Your task to perform on an android device: toggle data saver in the chrome app Image 0: 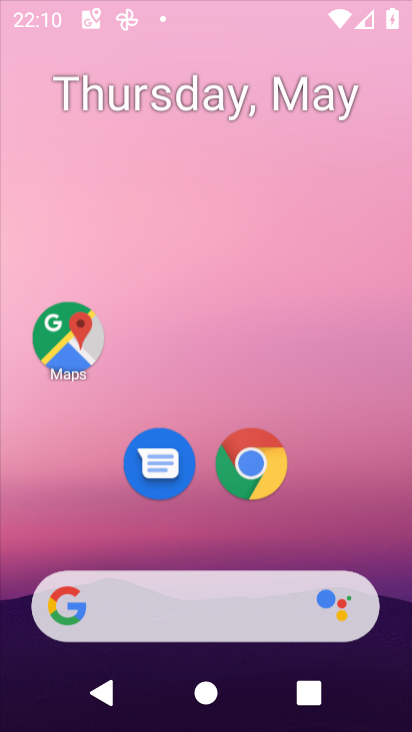
Step 0: drag from (325, 316) to (315, 44)
Your task to perform on an android device: toggle data saver in the chrome app Image 1: 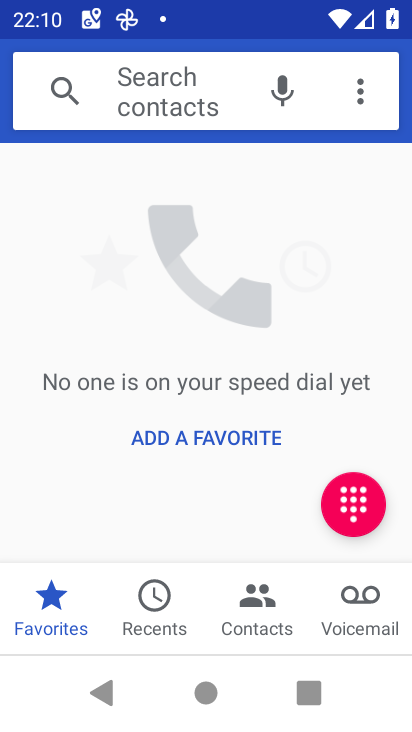
Step 1: press home button
Your task to perform on an android device: toggle data saver in the chrome app Image 2: 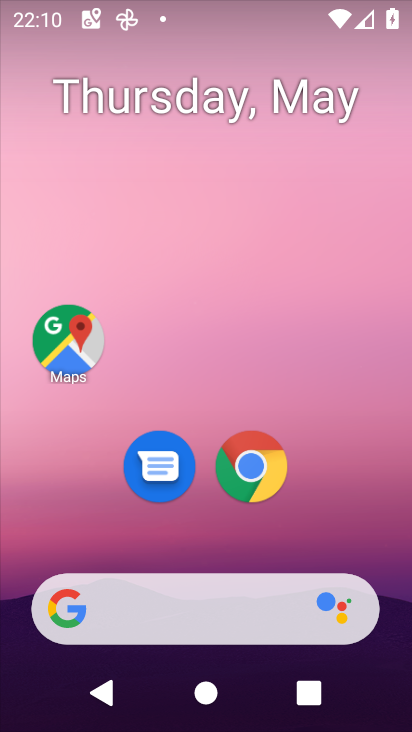
Step 2: drag from (330, 544) to (332, 30)
Your task to perform on an android device: toggle data saver in the chrome app Image 3: 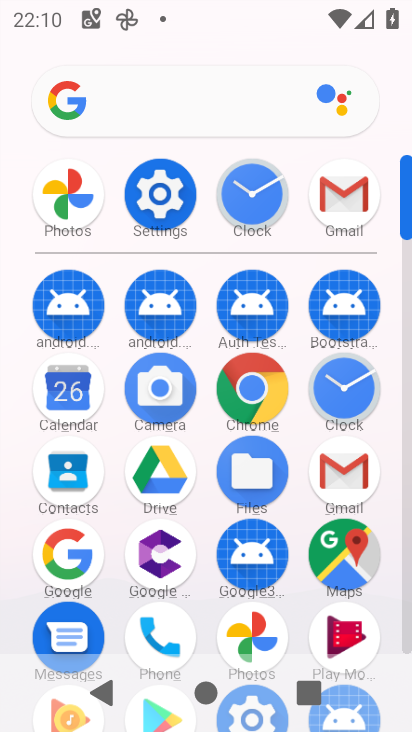
Step 3: click (265, 395)
Your task to perform on an android device: toggle data saver in the chrome app Image 4: 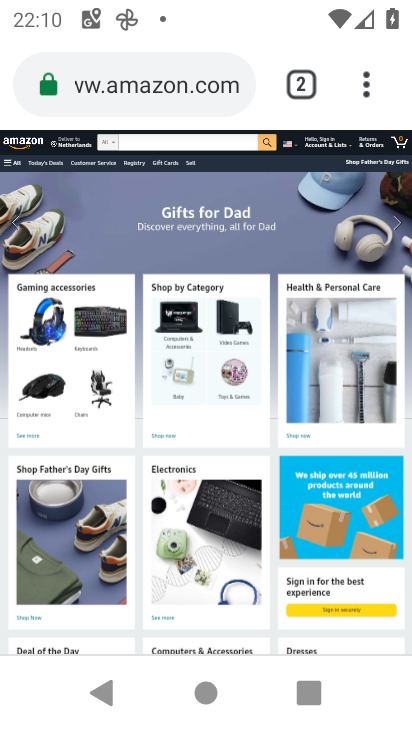
Step 4: click (363, 90)
Your task to perform on an android device: toggle data saver in the chrome app Image 5: 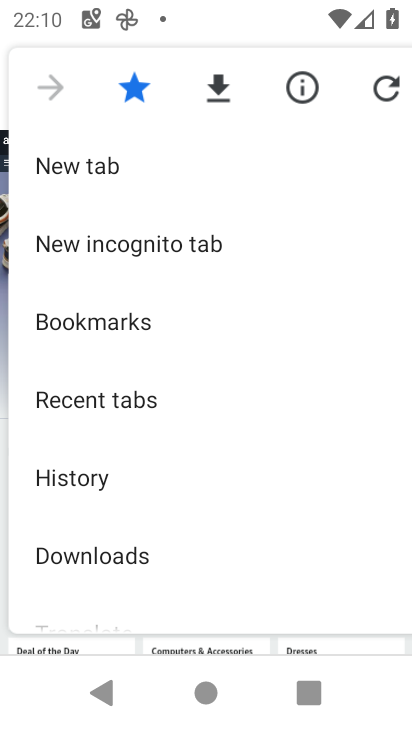
Step 5: drag from (238, 557) to (254, 187)
Your task to perform on an android device: toggle data saver in the chrome app Image 6: 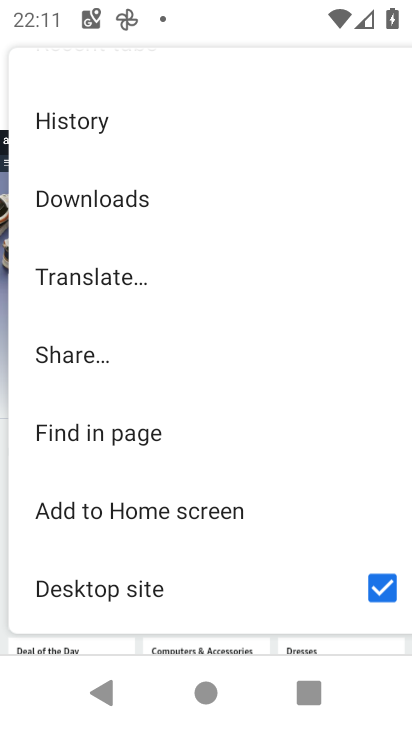
Step 6: drag from (153, 549) to (182, 180)
Your task to perform on an android device: toggle data saver in the chrome app Image 7: 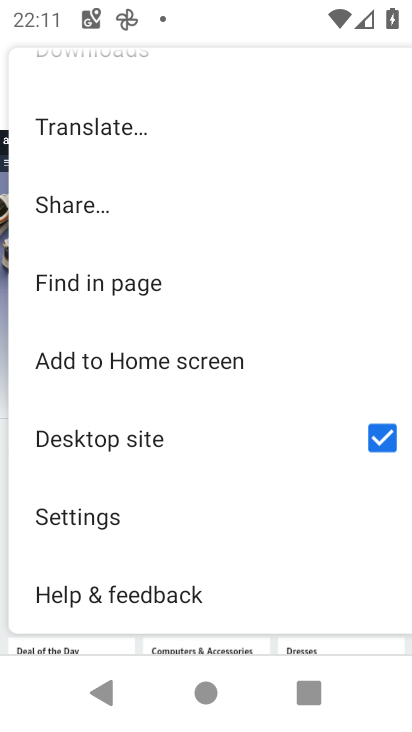
Step 7: click (106, 510)
Your task to perform on an android device: toggle data saver in the chrome app Image 8: 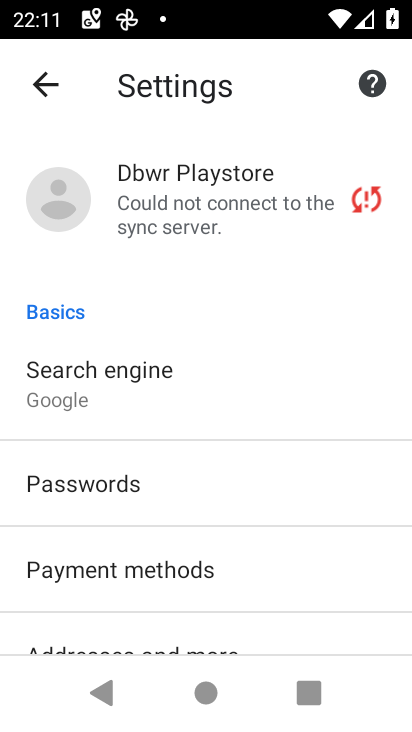
Step 8: drag from (156, 555) to (161, 201)
Your task to perform on an android device: toggle data saver in the chrome app Image 9: 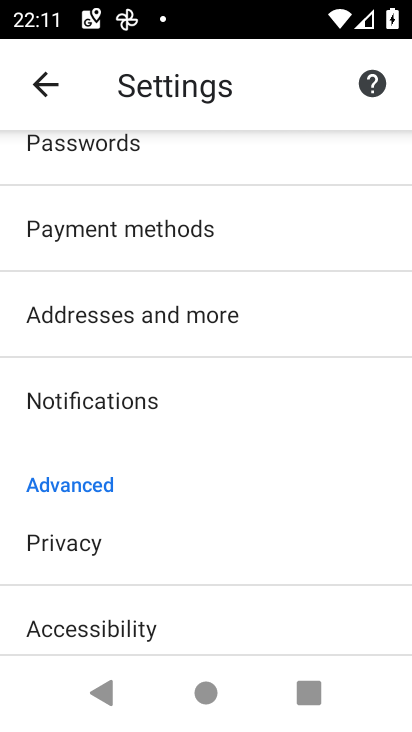
Step 9: drag from (175, 591) to (170, 400)
Your task to perform on an android device: toggle data saver in the chrome app Image 10: 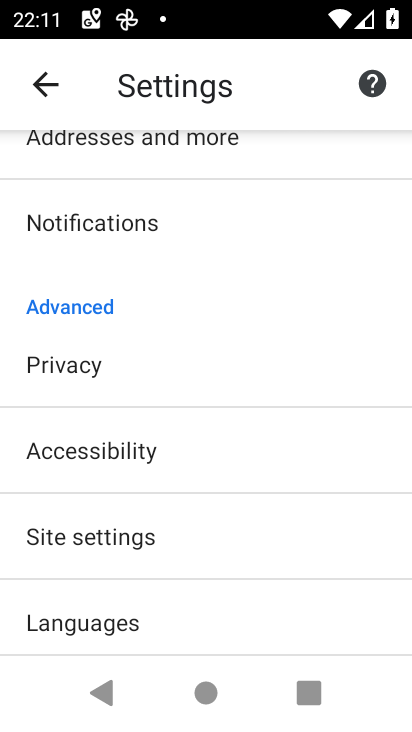
Step 10: drag from (179, 603) to (194, 363)
Your task to perform on an android device: toggle data saver in the chrome app Image 11: 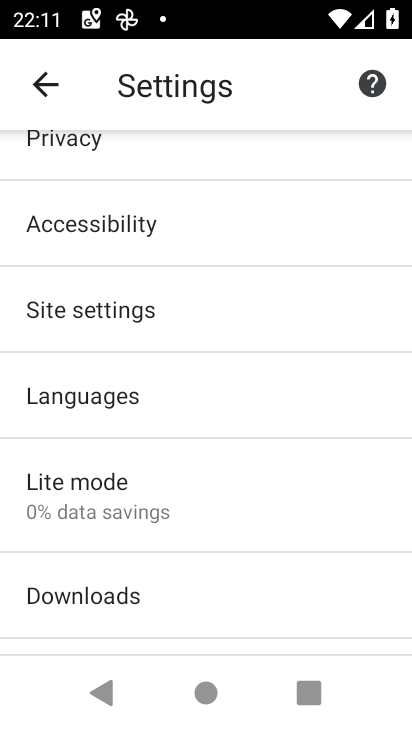
Step 11: drag from (197, 566) to (212, 324)
Your task to perform on an android device: toggle data saver in the chrome app Image 12: 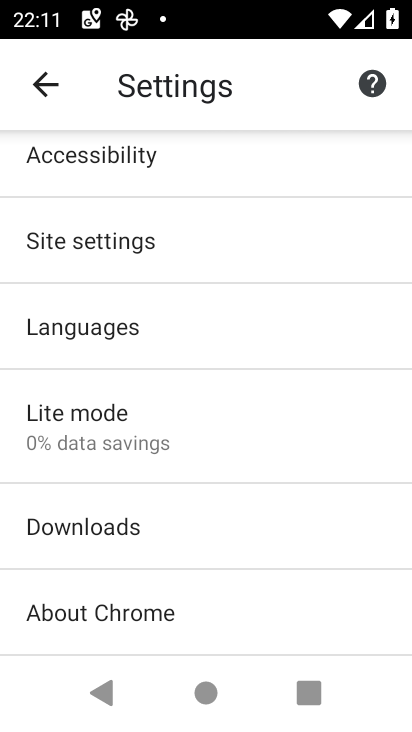
Step 12: click (143, 436)
Your task to perform on an android device: toggle data saver in the chrome app Image 13: 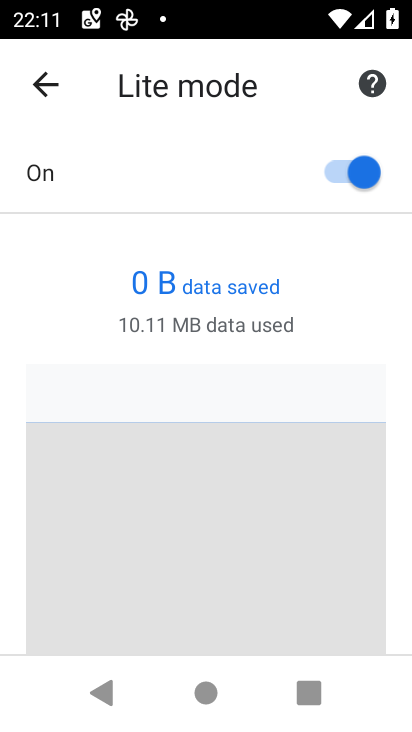
Step 13: click (335, 163)
Your task to perform on an android device: toggle data saver in the chrome app Image 14: 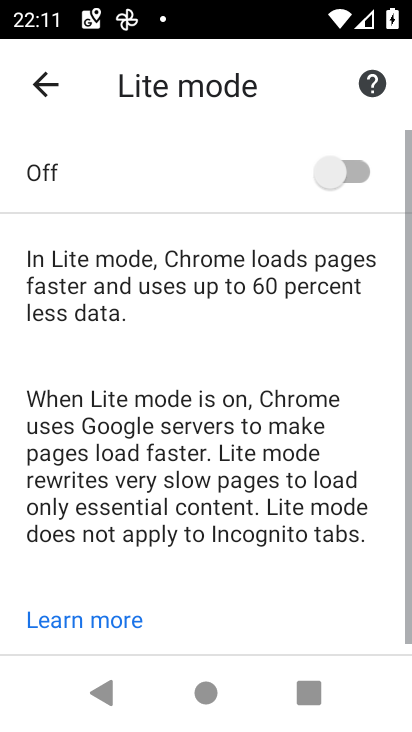
Step 14: task complete